Your task to perform on an android device: Empty the shopping cart on costco. Search for logitech g903 on costco, select the first entry, and add it to the cart. Image 0: 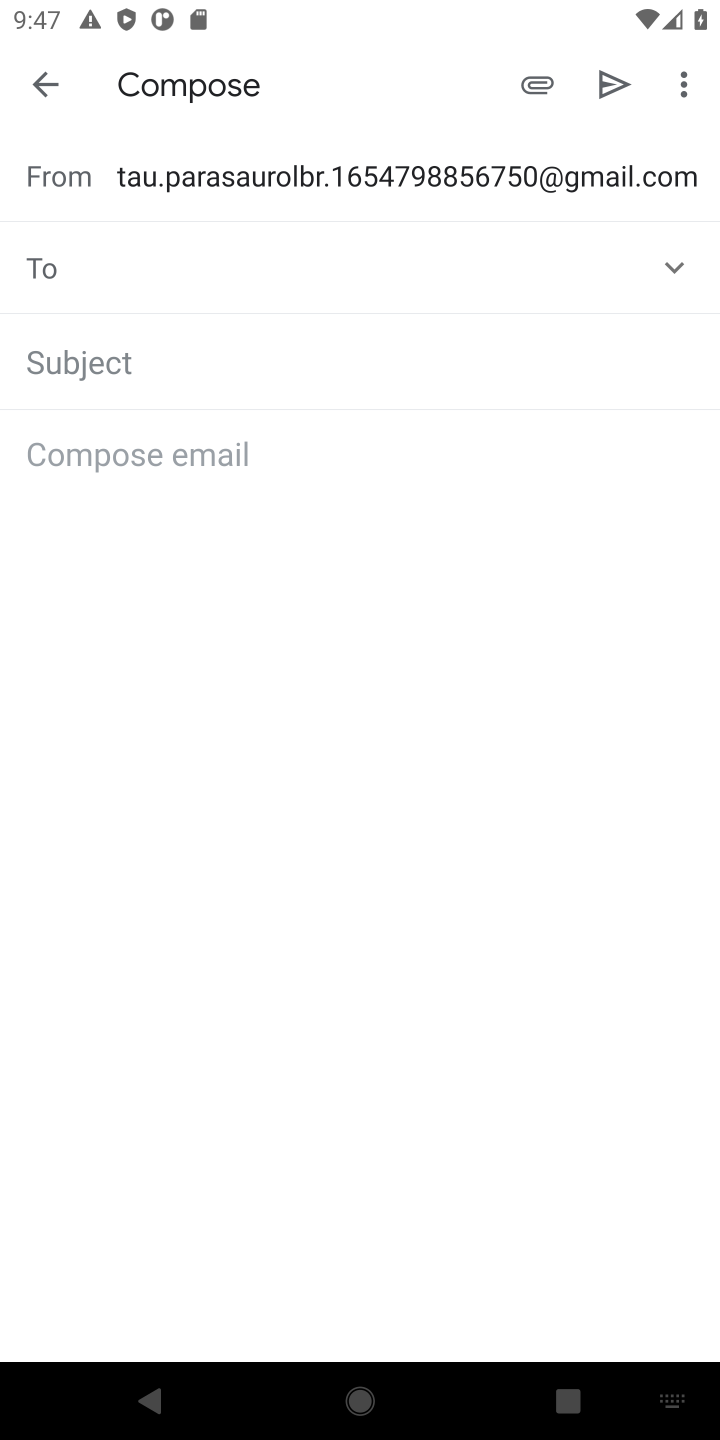
Step 0: press home button
Your task to perform on an android device: Empty the shopping cart on costco. Search for logitech g903 on costco, select the first entry, and add it to the cart. Image 1: 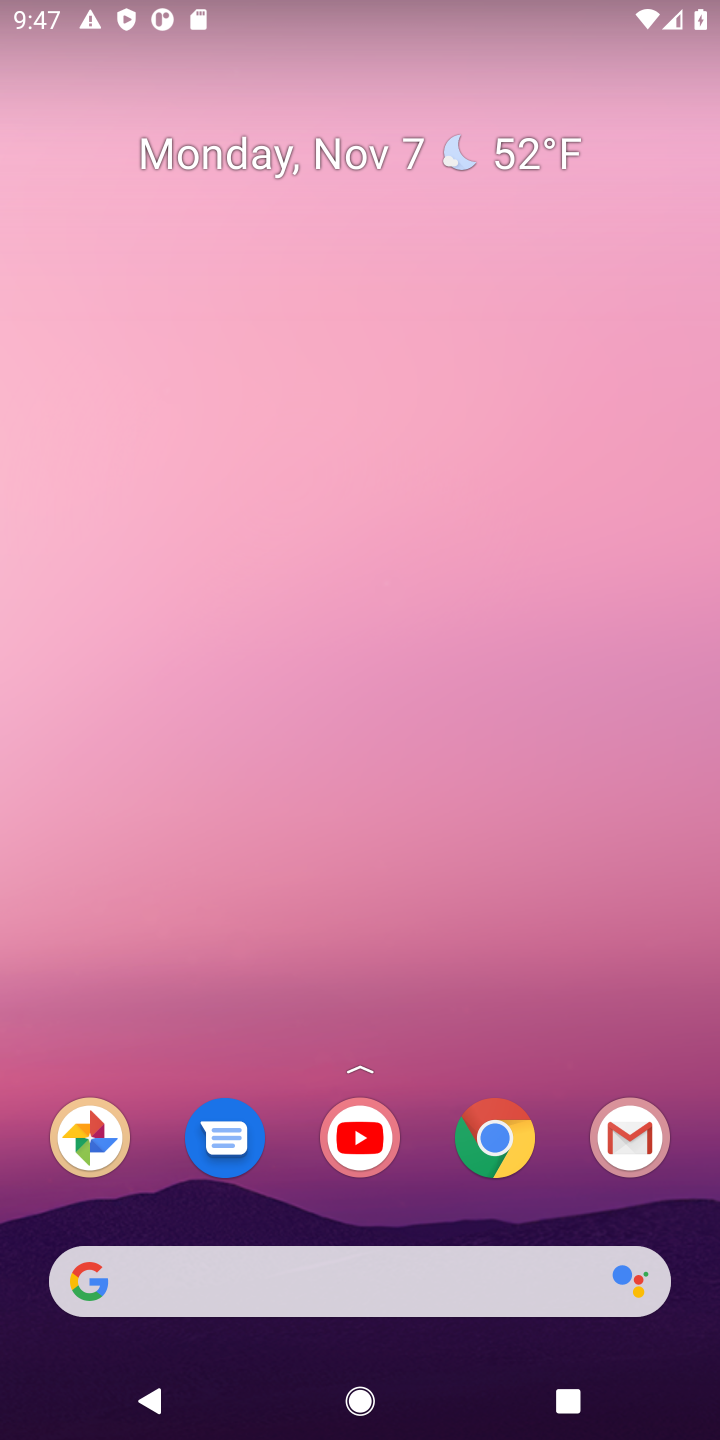
Step 1: drag from (415, 1213) to (360, 0)
Your task to perform on an android device: Empty the shopping cart on costco. Search for logitech g903 on costco, select the first entry, and add it to the cart. Image 2: 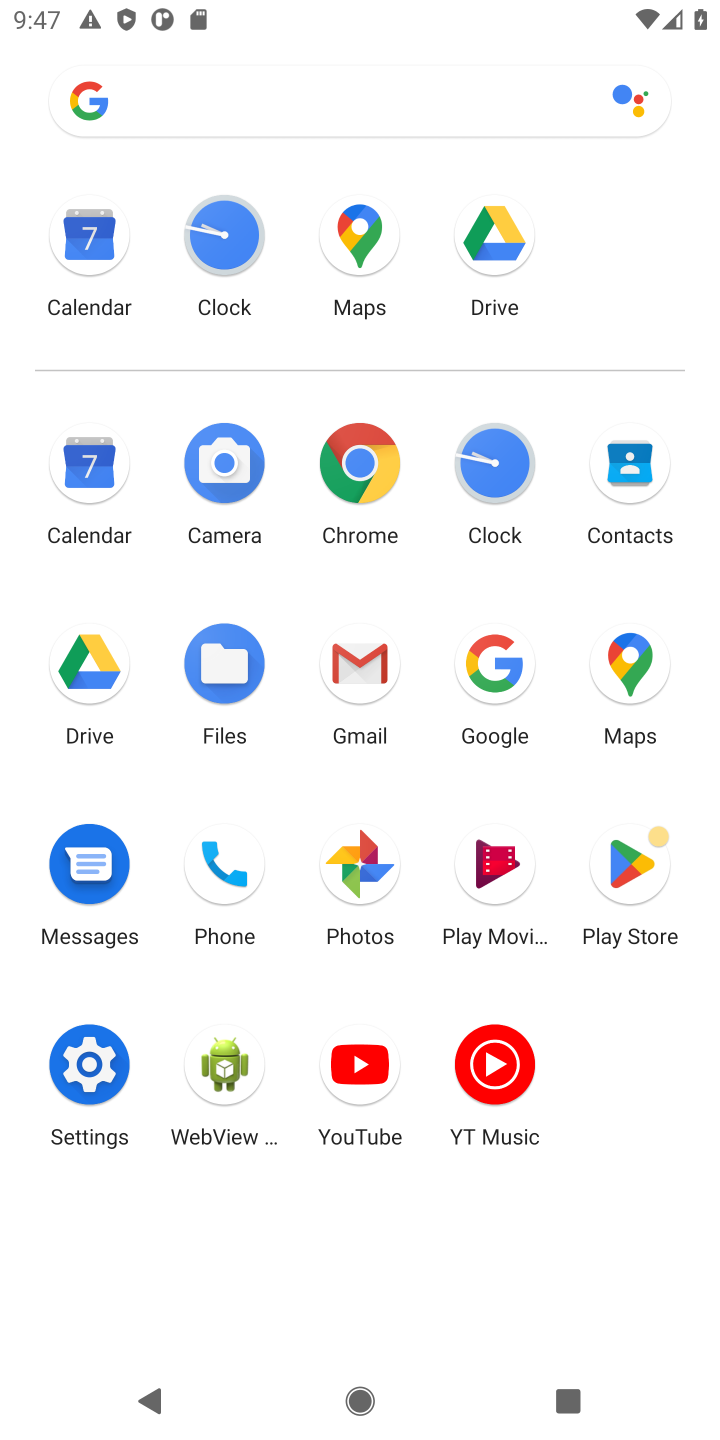
Step 2: click (363, 456)
Your task to perform on an android device: Empty the shopping cart on costco. Search for logitech g903 on costco, select the first entry, and add it to the cart. Image 3: 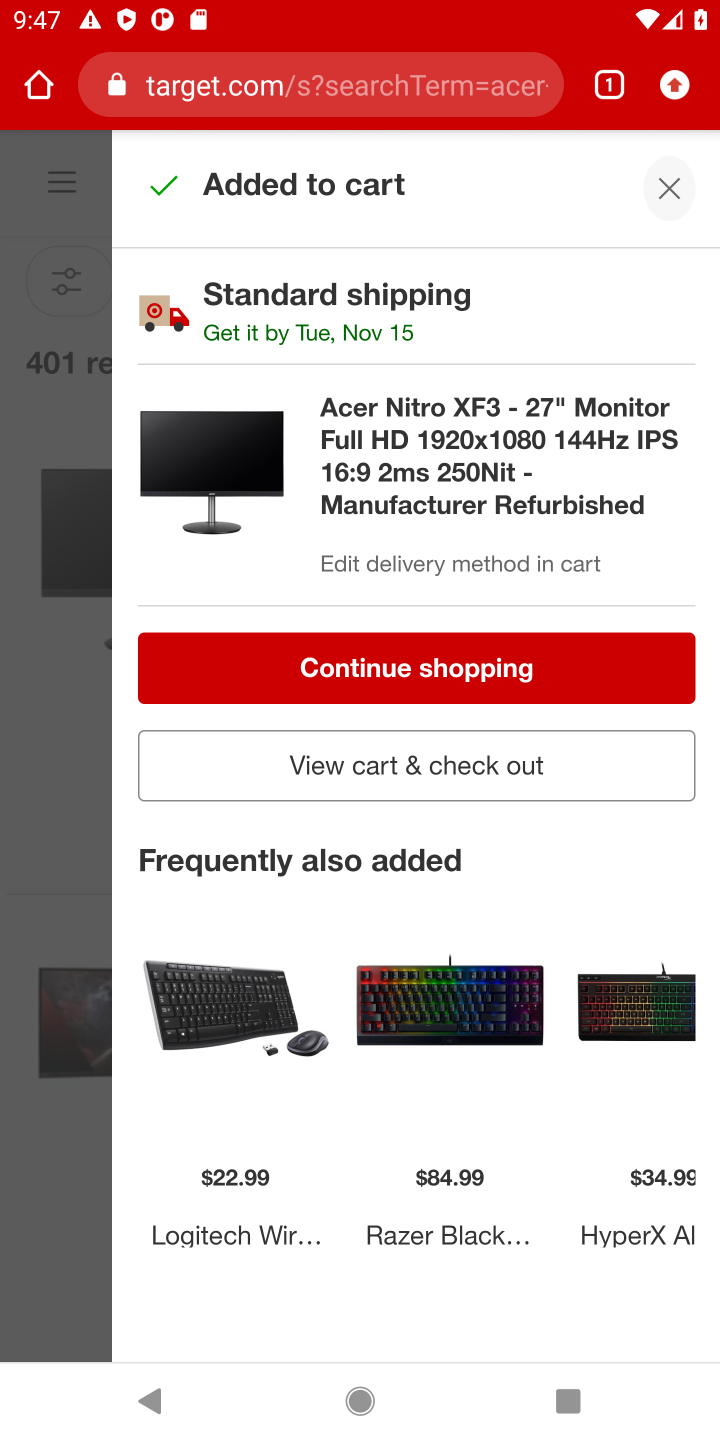
Step 3: click (398, 89)
Your task to perform on an android device: Empty the shopping cart on costco. Search for logitech g903 on costco, select the first entry, and add it to the cart. Image 4: 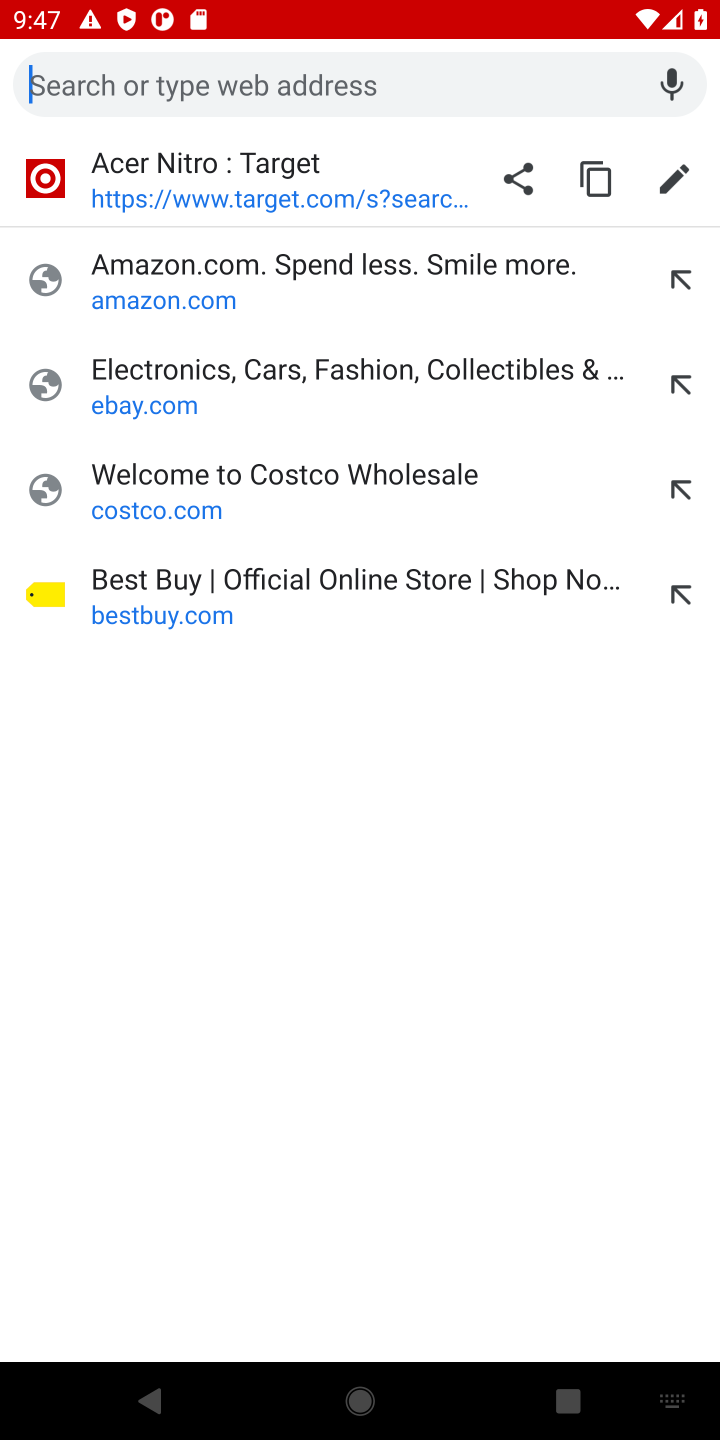
Step 4: type "costco.com"
Your task to perform on an android device: Empty the shopping cart on costco. Search for logitech g903 on costco, select the first entry, and add it to the cart. Image 5: 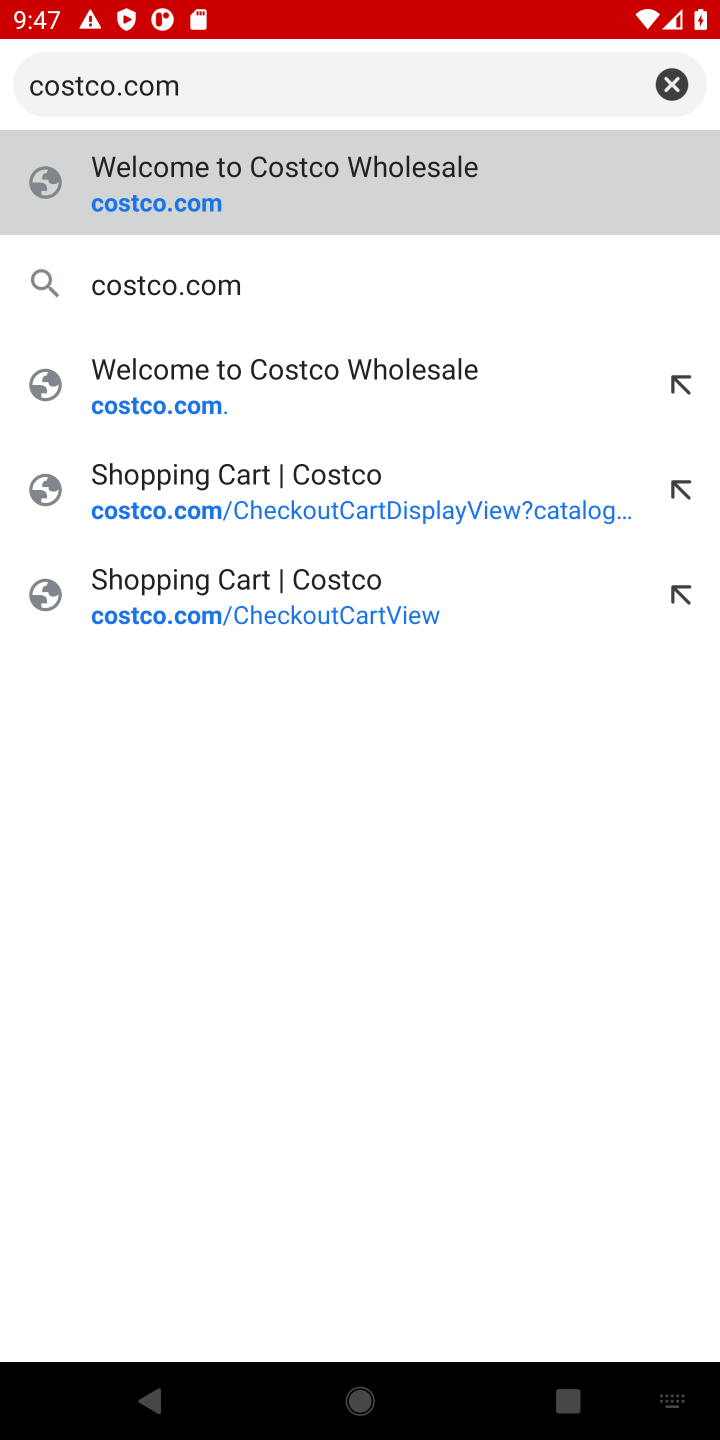
Step 5: press enter
Your task to perform on an android device: Empty the shopping cart on costco. Search for logitech g903 on costco, select the first entry, and add it to the cart. Image 6: 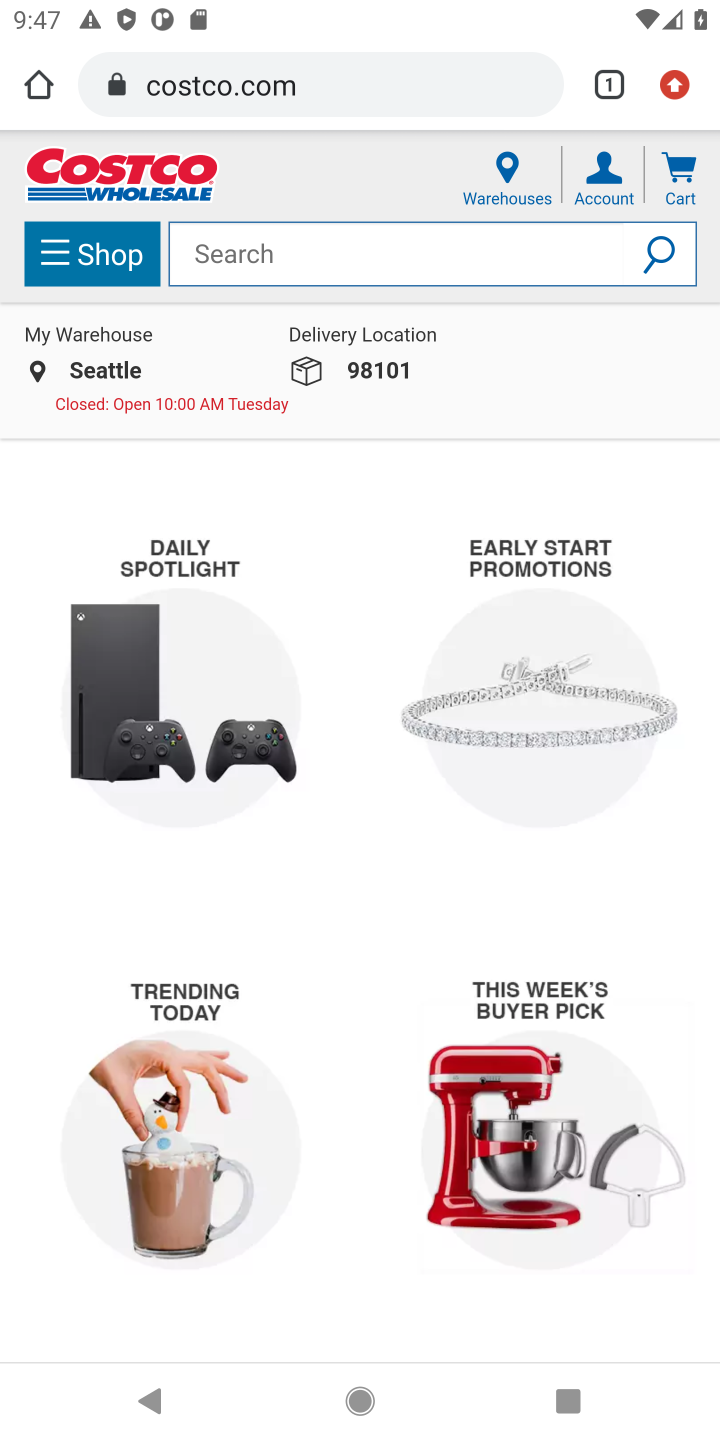
Step 6: click (690, 158)
Your task to perform on an android device: Empty the shopping cart on costco. Search for logitech g903 on costco, select the first entry, and add it to the cart. Image 7: 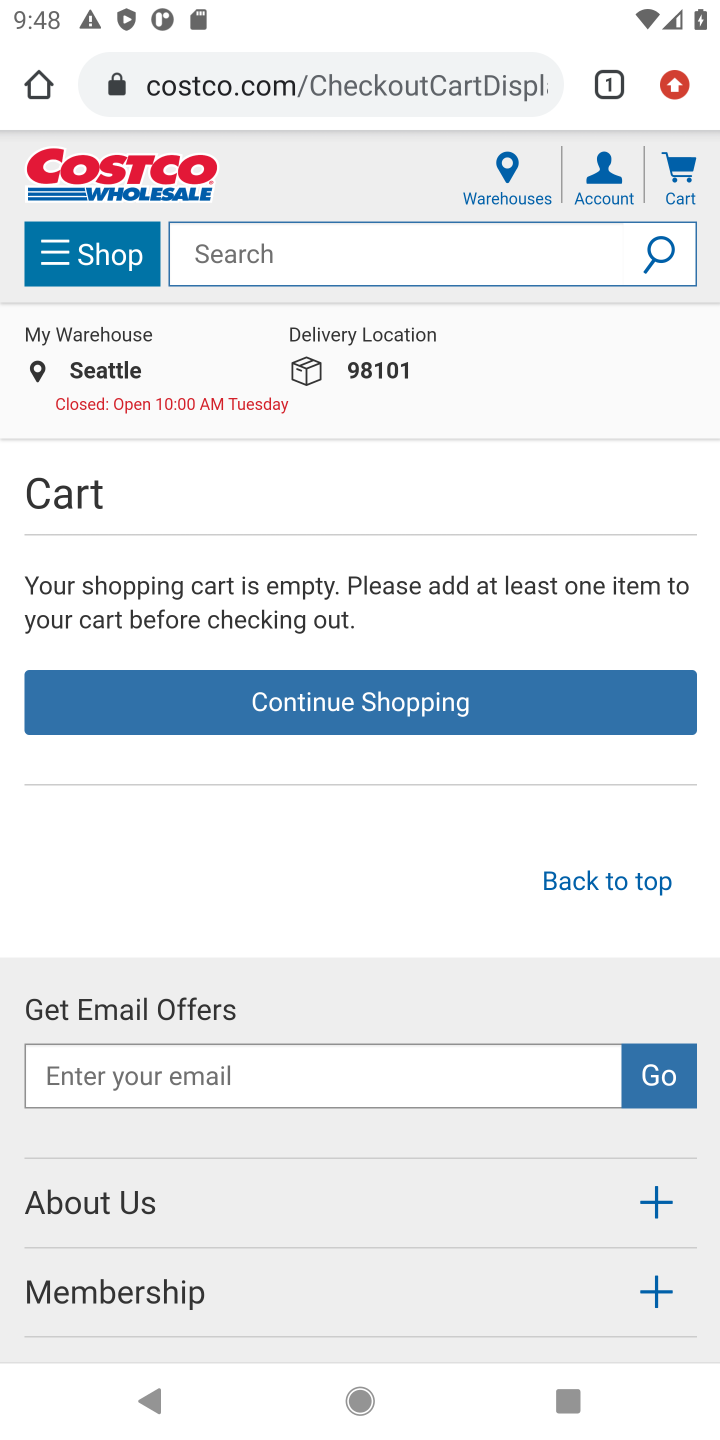
Step 7: click (506, 266)
Your task to perform on an android device: Empty the shopping cart on costco. Search for logitech g903 on costco, select the first entry, and add it to the cart. Image 8: 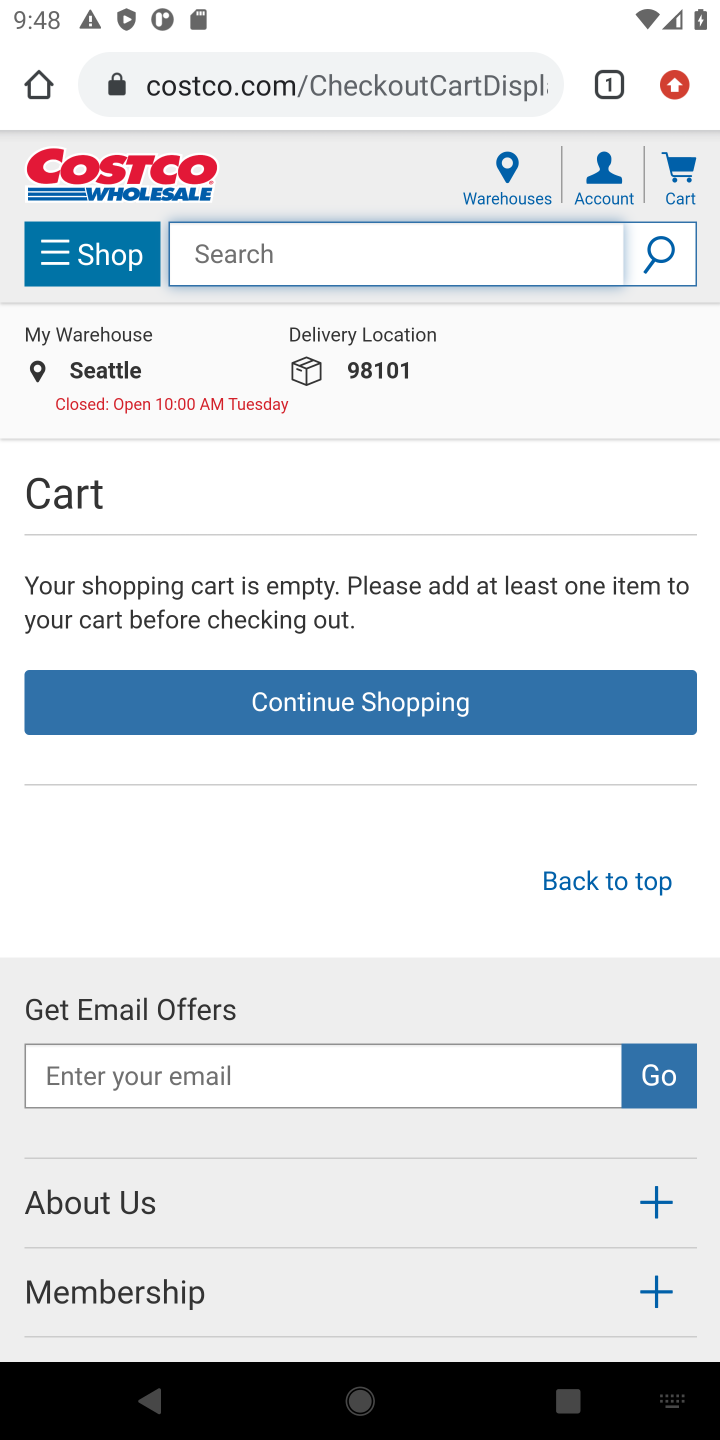
Step 8: type "logitech g903"
Your task to perform on an android device: Empty the shopping cart on costco. Search for logitech g903 on costco, select the first entry, and add it to the cart. Image 9: 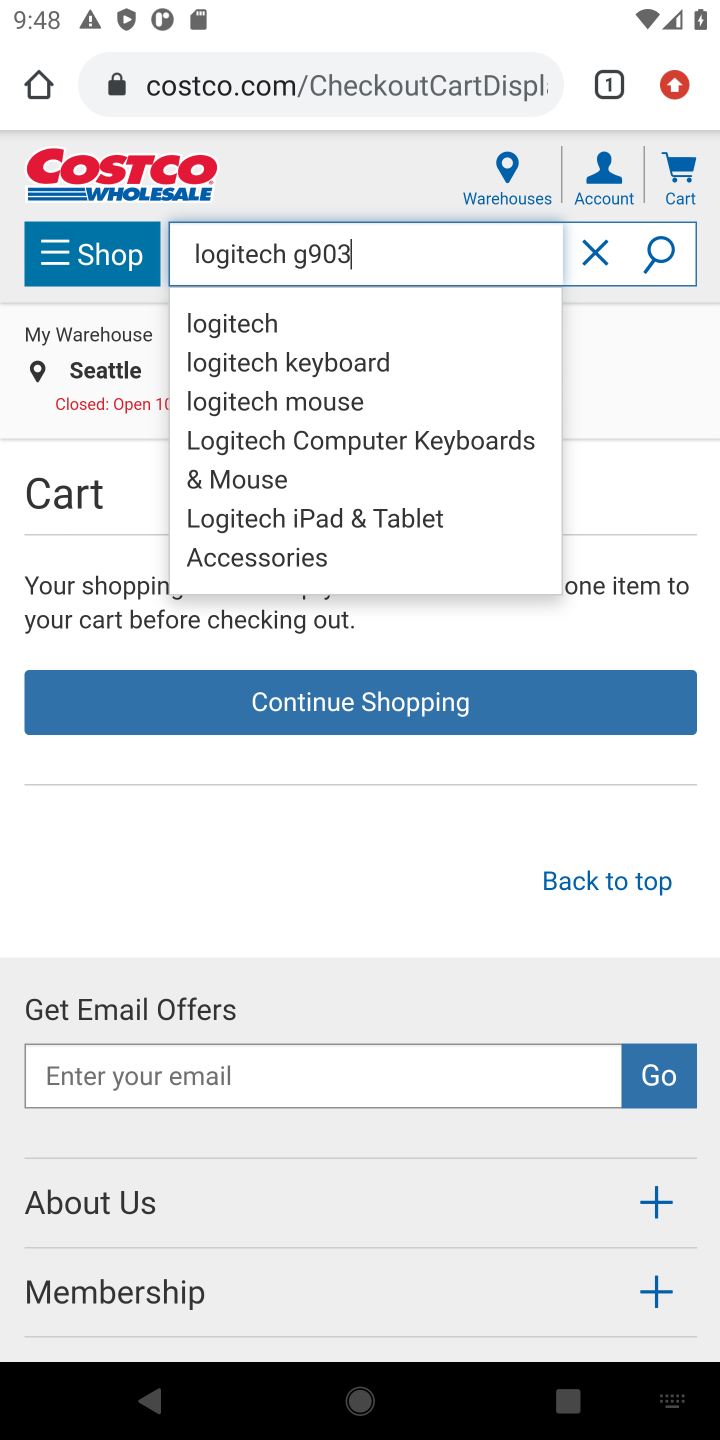
Step 9: press enter
Your task to perform on an android device: Empty the shopping cart on costco. Search for logitech g903 on costco, select the first entry, and add it to the cart. Image 10: 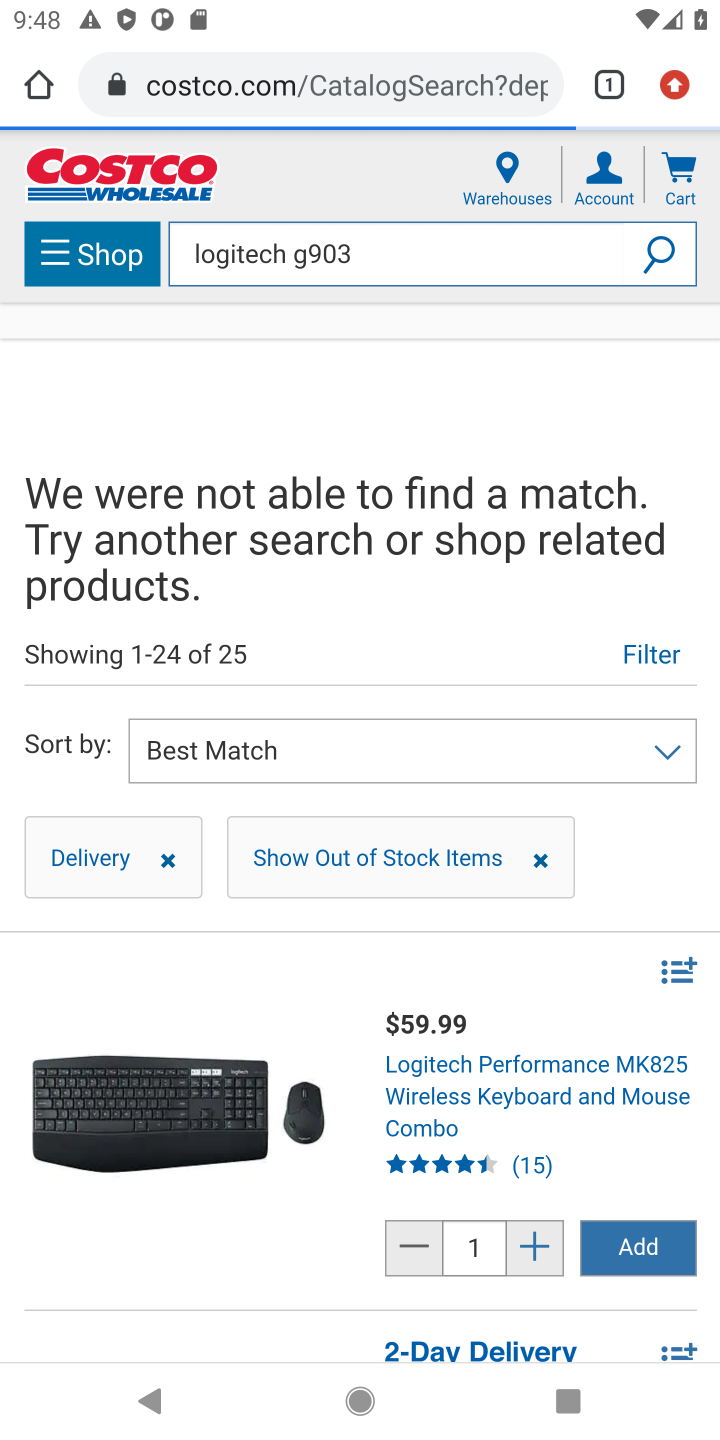
Step 10: task complete